Your task to perform on an android device: turn off location Image 0: 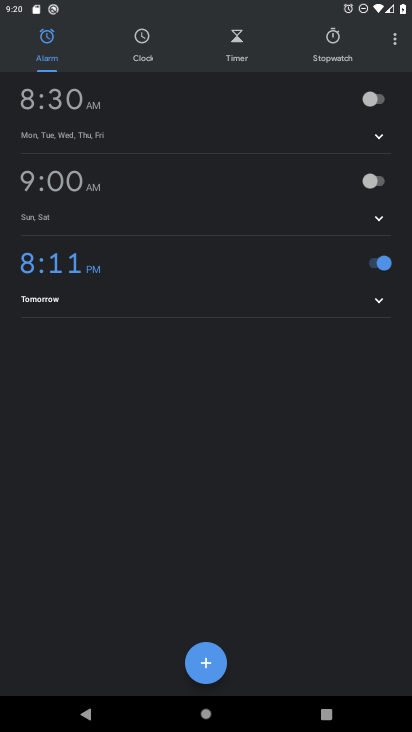
Step 0: press home button
Your task to perform on an android device: turn off location Image 1: 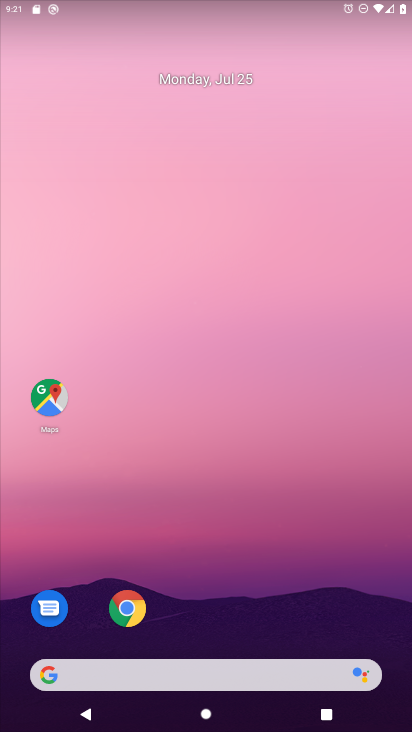
Step 1: drag from (163, 693) to (275, 133)
Your task to perform on an android device: turn off location Image 2: 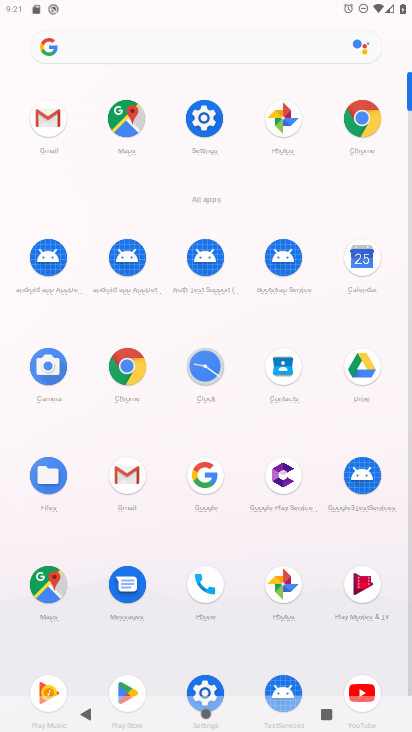
Step 2: click (197, 109)
Your task to perform on an android device: turn off location Image 3: 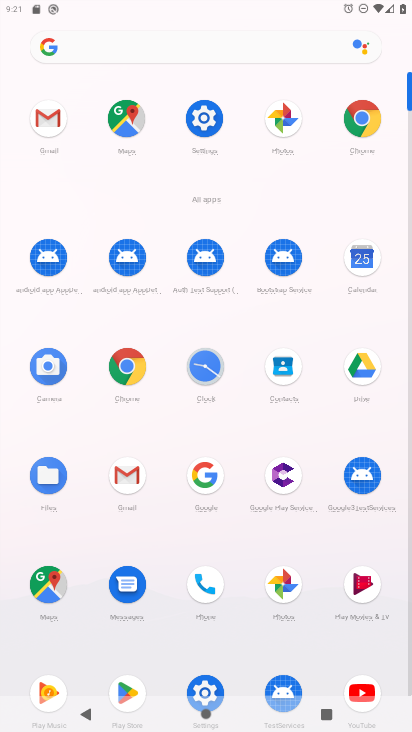
Step 3: click (197, 109)
Your task to perform on an android device: turn off location Image 4: 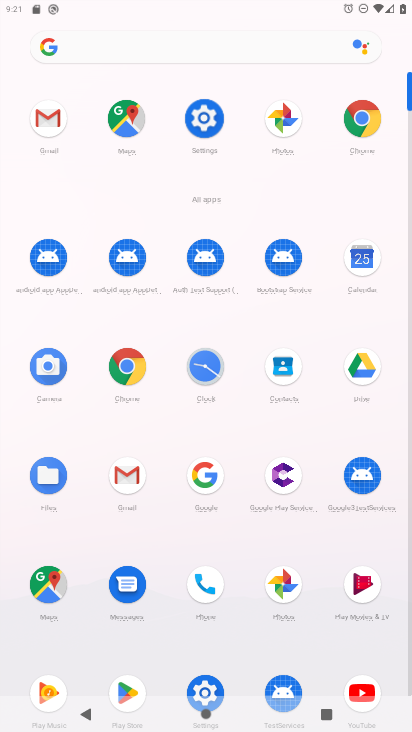
Step 4: click (197, 109)
Your task to perform on an android device: turn off location Image 5: 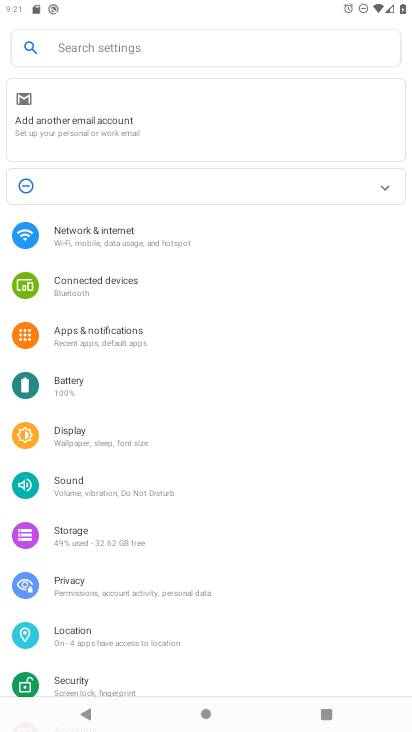
Step 5: click (109, 639)
Your task to perform on an android device: turn off location Image 6: 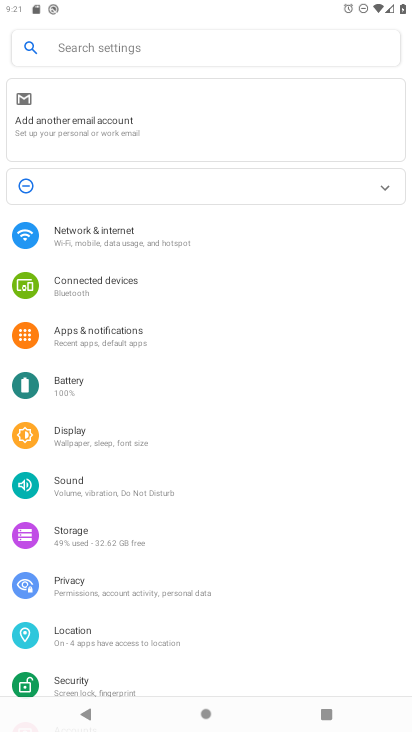
Step 6: click (109, 639)
Your task to perform on an android device: turn off location Image 7: 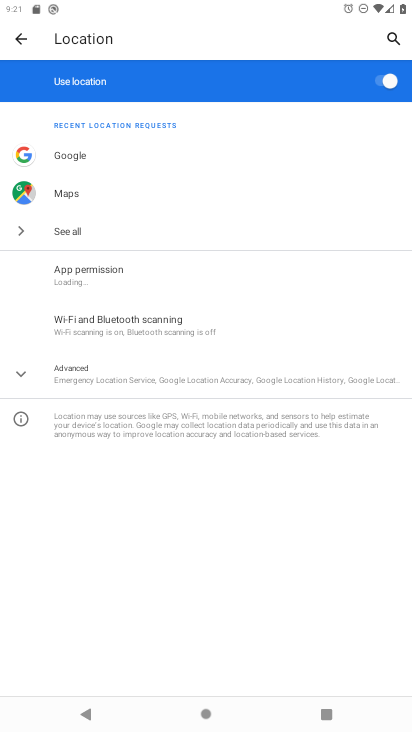
Step 7: click (389, 79)
Your task to perform on an android device: turn off location Image 8: 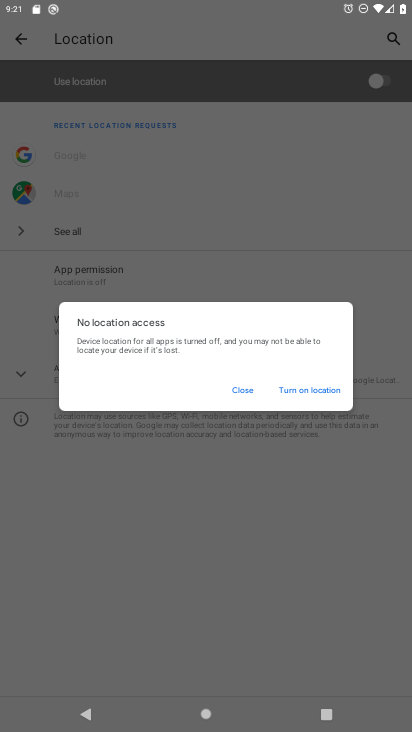
Step 8: task complete